Your task to perform on an android device: What is the news today? Image 0: 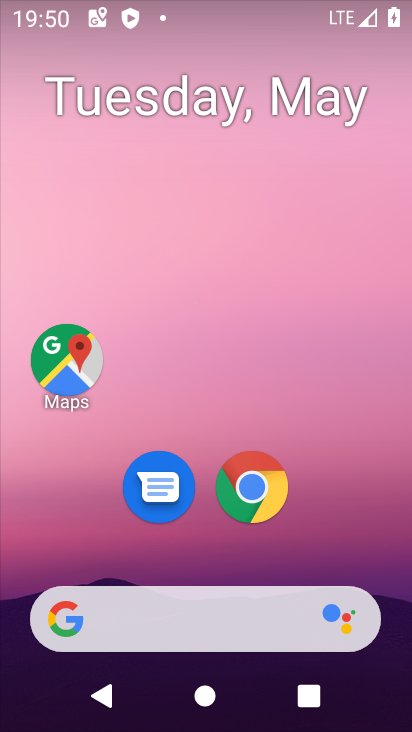
Step 0: click (182, 608)
Your task to perform on an android device: What is the news today? Image 1: 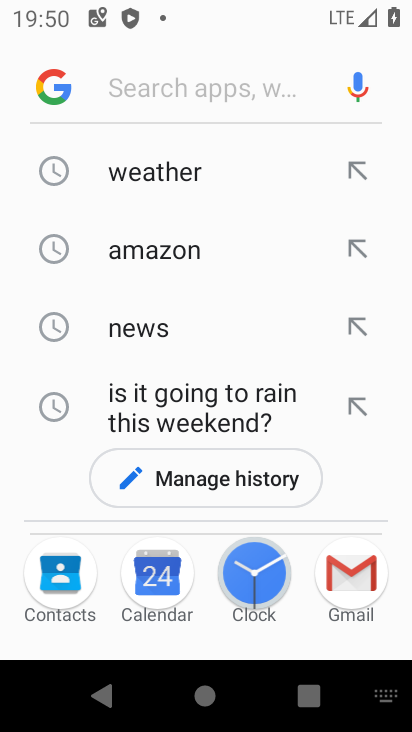
Step 1: click (138, 322)
Your task to perform on an android device: What is the news today? Image 2: 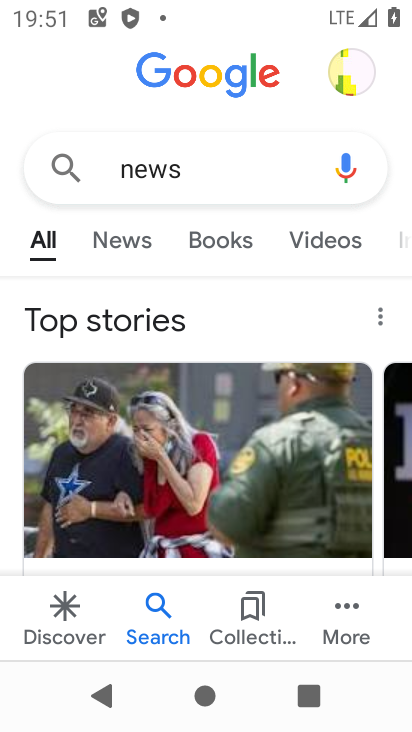
Step 2: task complete